Your task to perform on an android device: Open calendar and show me the third week of next month Image 0: 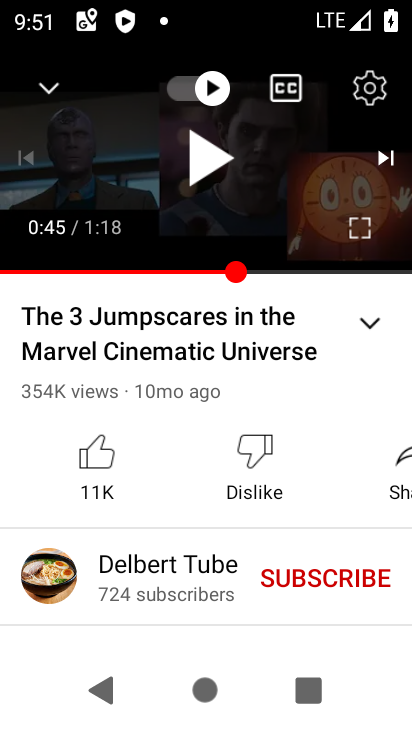
Step 0: press home button
Your task to perform on an android device: Open calendar and show me the third week of next month Image 1: 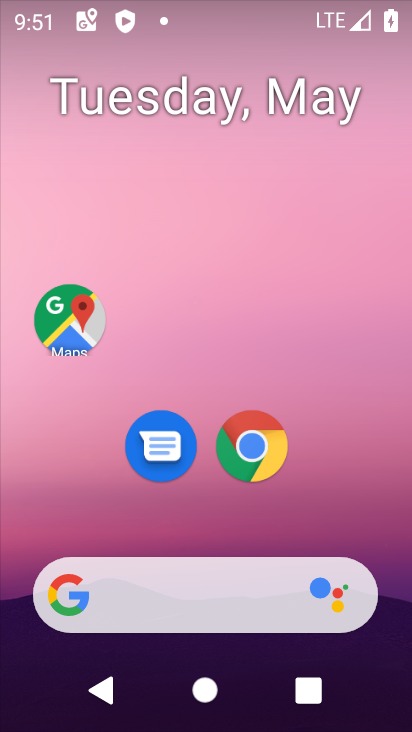
Step 1: drag from (178, 613) to (195, 6)
Your task to perform on an android device: Open calendar and show me the third week of next month Image 2: 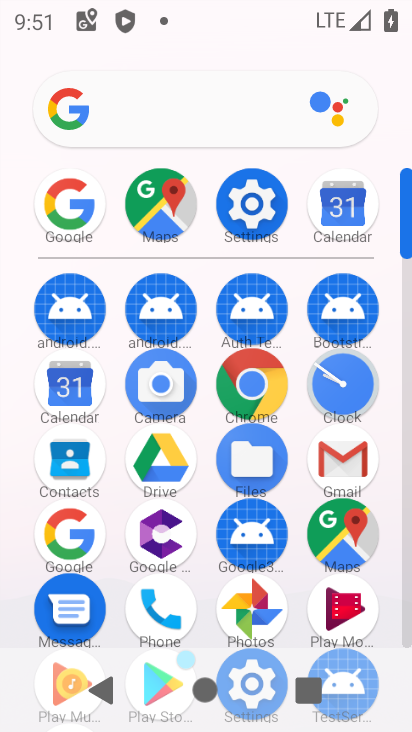
Step 2: click (64, 385)
Your task to perform on an android device: Open calendar and show me the third week of next month Image 3: 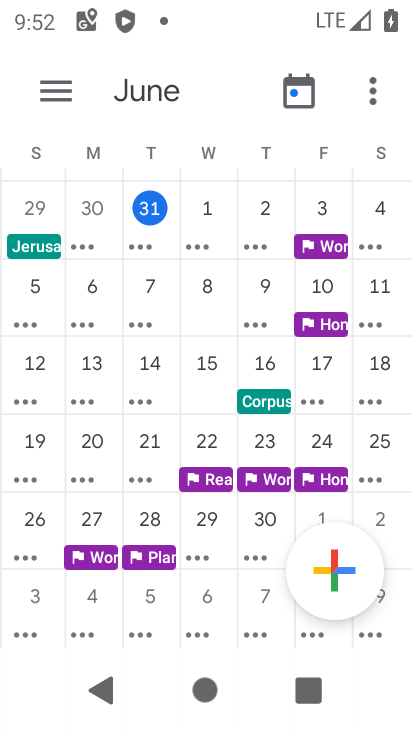
Step 3: task complete